Your task to perform on an android device: make emails show in primary in the gmail app Image 0: 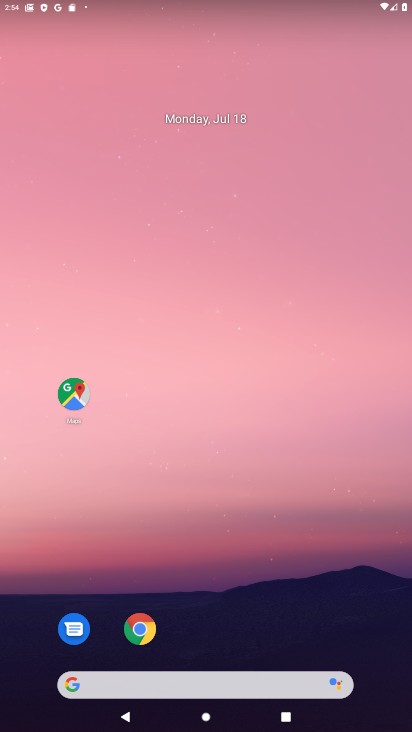
Step 0: drag from (239, 659) to (243, 118)
Your task to perform on an android device: make emails show in primary in the gmail app Image 1: 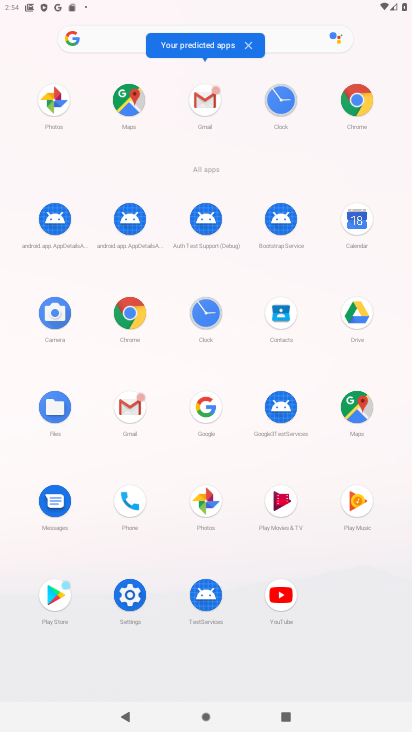
Step 1: click (140, 406)
Your task to perform on an android device: make emails show in primary in the gmail app Image 2: 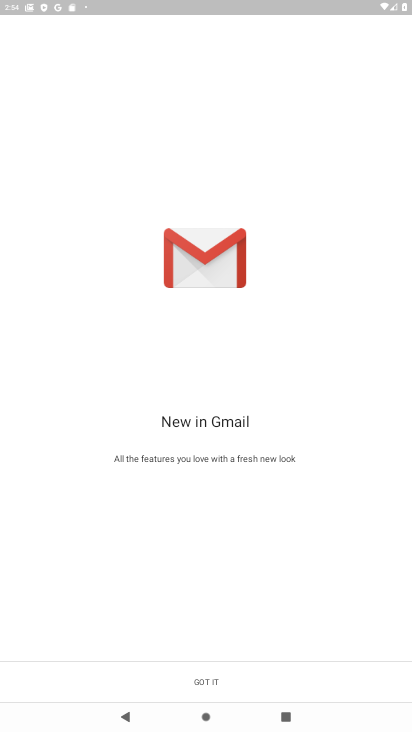
Step 2: click (198, 679)
Your task to perform on an android device: make emails show in primary in the gmail app Image 3: 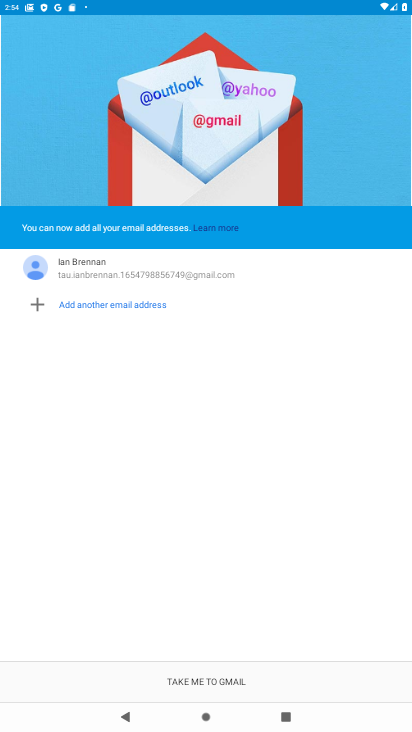
Step 3: click (198, 679)
Your task to perform on an android device: make emails show in primary in the gmail app Image 4: 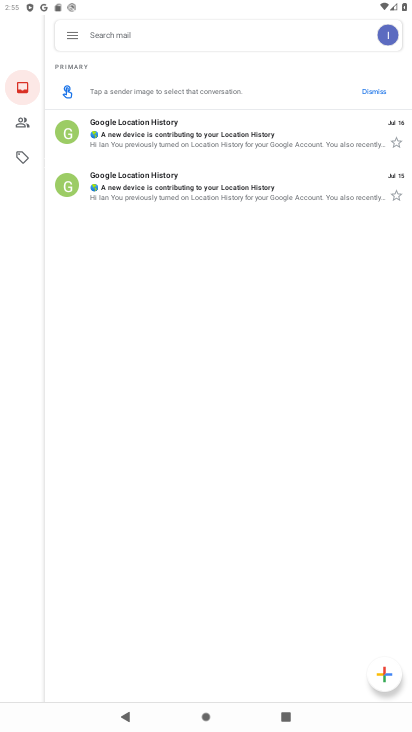
Step 4: click (231, 355)
Your task to perform on an android device: make emails show in primary in the gmail app Image 5: 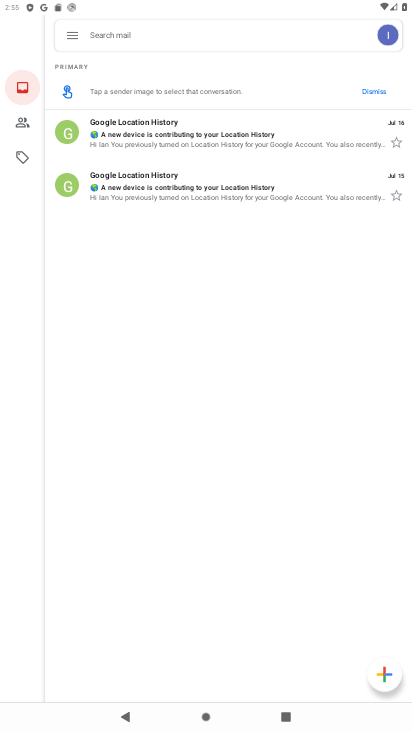
Step 5: task complete